Your task to perform on an android device: Go to Maps Image 0: 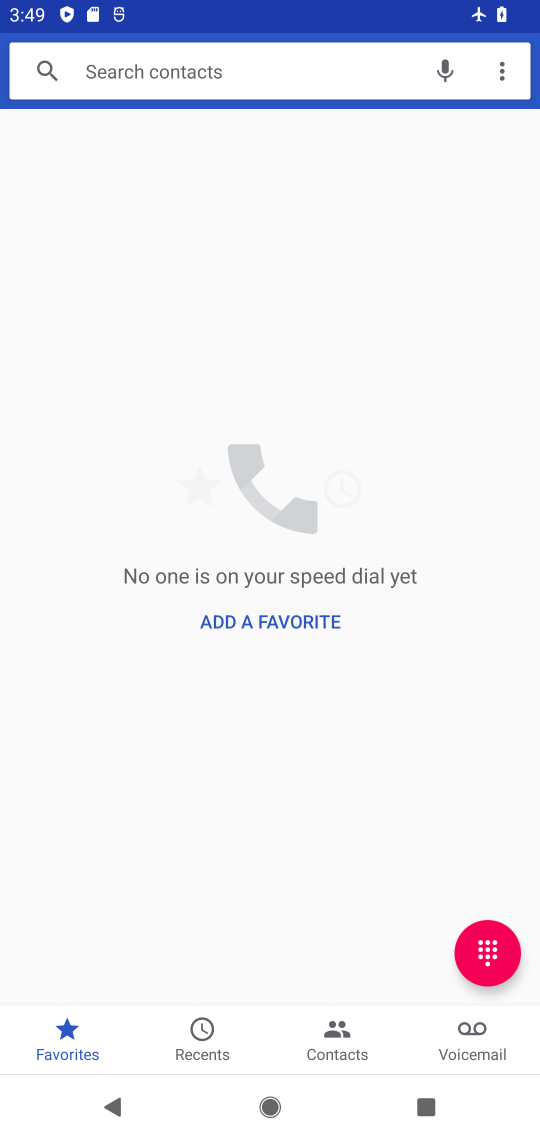
Step 0: press home button
Your task to perform on an android device: Go to Maps Image 1: 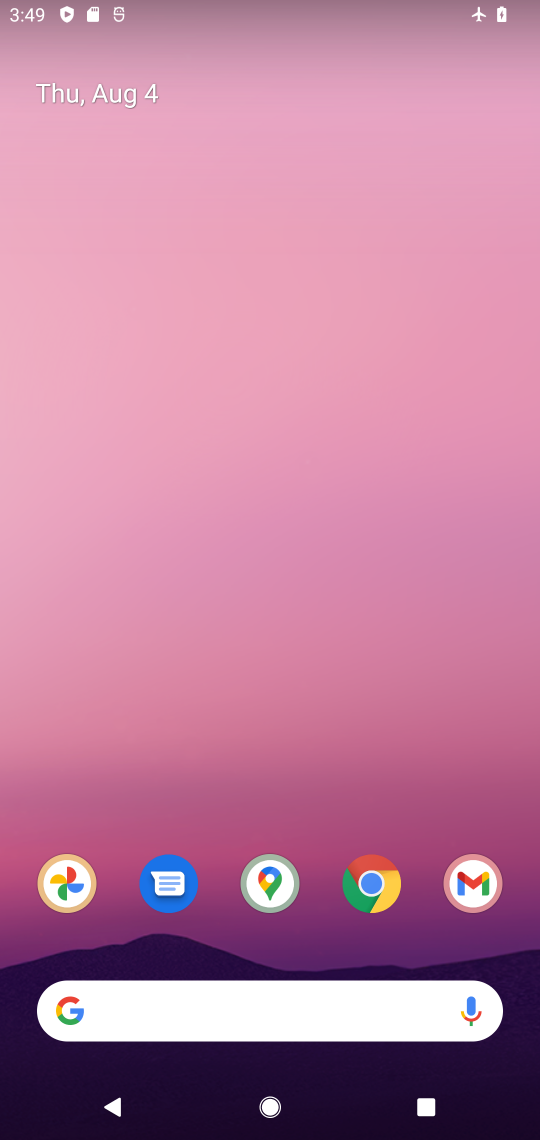
Step 1: drag from (371, 787) to (197, 22)
Your task to perform on an android device: Go to Maps Image 2: 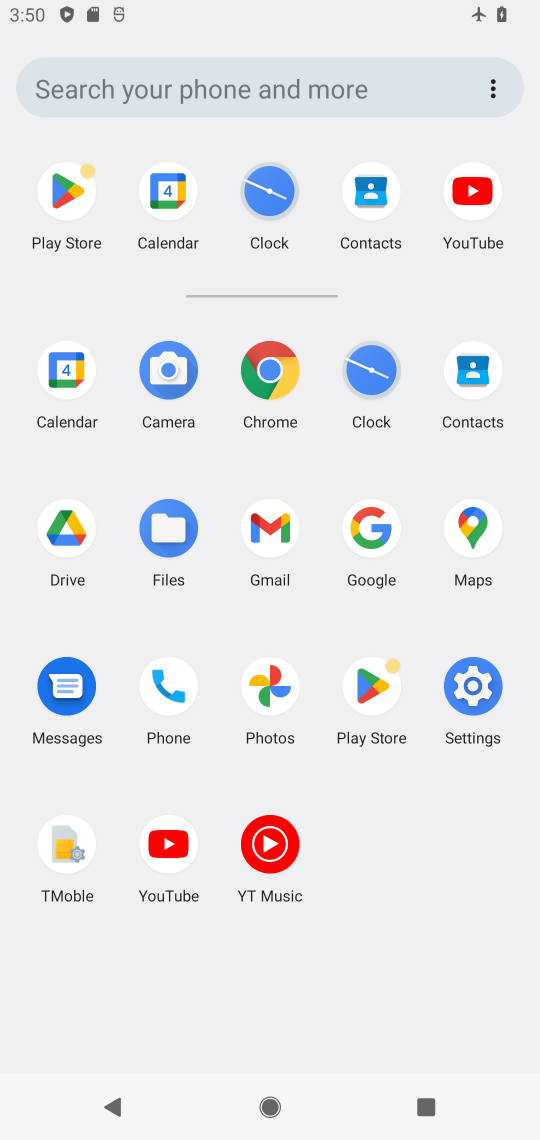
Step 2: click (455, 536)
Your task to perform on an android device: Go to Maps Image 3: 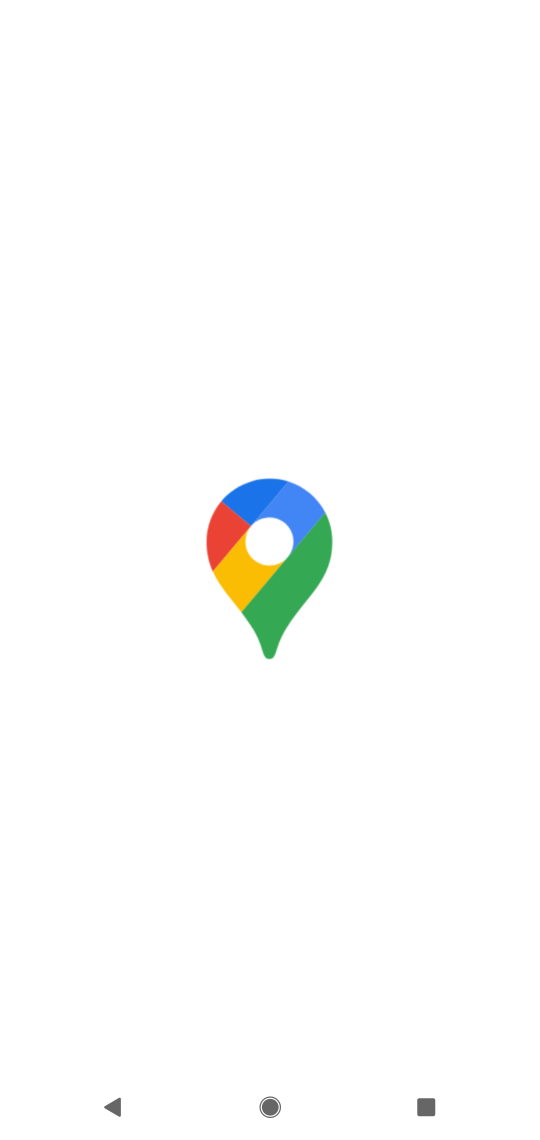
Step 3: task complete